Your task to perform on an android device: Go to Amazon Image 0: 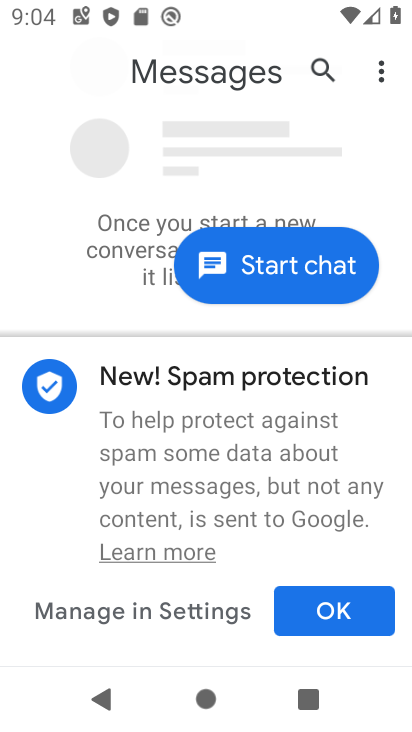
Step 0: press home button
Your task to perform on an android device: Go to Amazon Image 1: 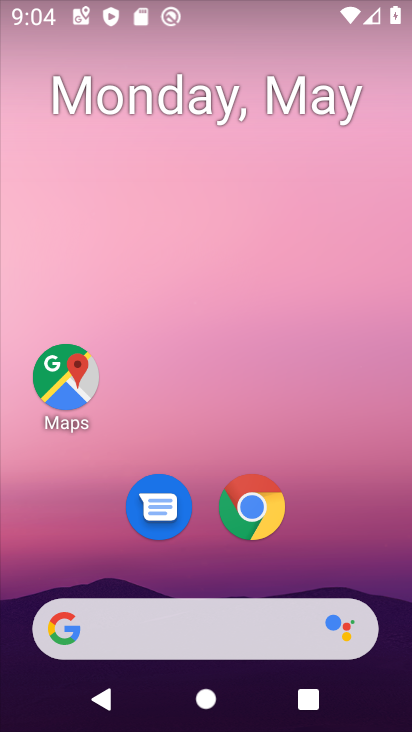
Step 1: click (250, 493)
Your task to perform on an android device: Go to Amazon Image 2: 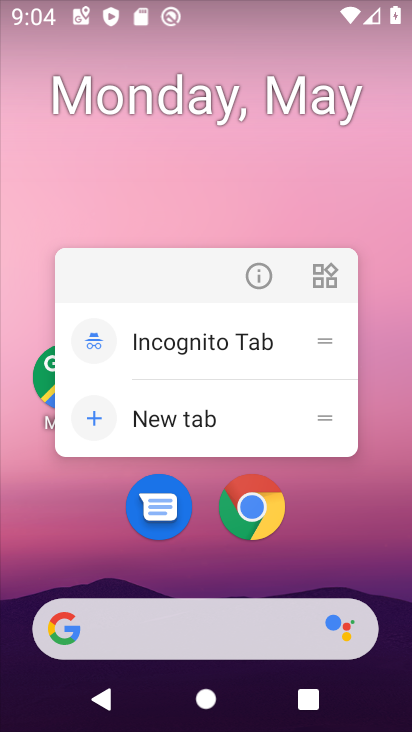
Step 2: click (251, 504)
Your task to perform on an android device: Go to Amazon Image 3: 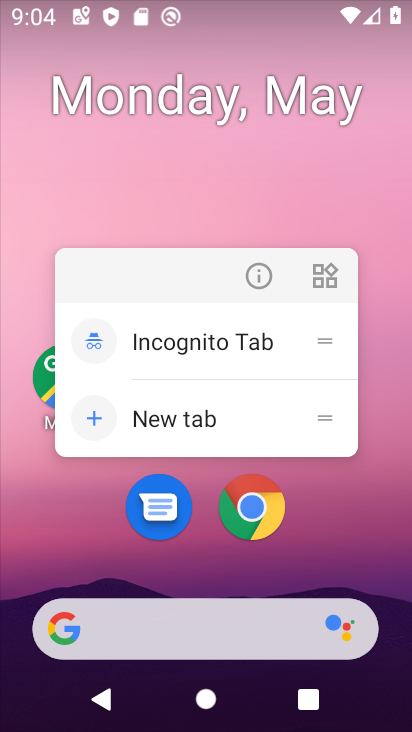
Step 3: click (255, 498)
Your task to perform on an android device: Go to Amazon Image 4: 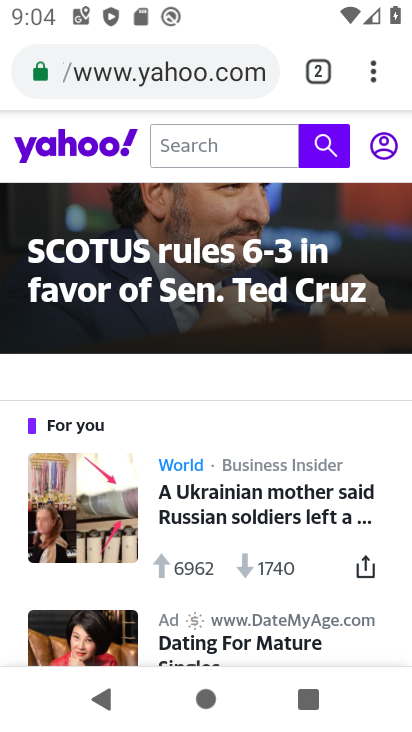
Step 4: click (205, 78)
Your task to perform on an android device: Go to Amazon Image 5: 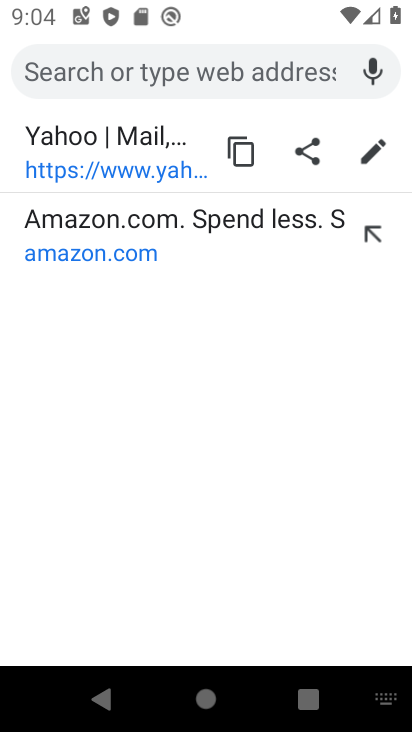
Step 5: type "Amazon"
Your task to perform on an android device: Go to Amazon Image 6: 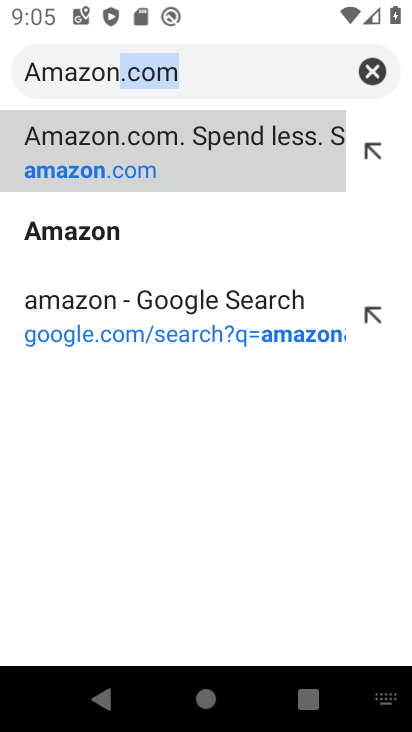
Step 6: click (115, 175)
Your task to perform on an android device: Go to Amazon Image 7: 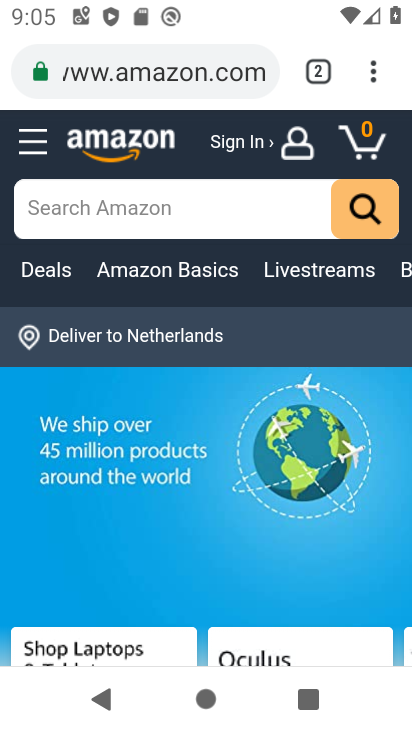
Step 7: task complete